Your task to perform on an android device: toggle pop-ups in chrome Image 0: 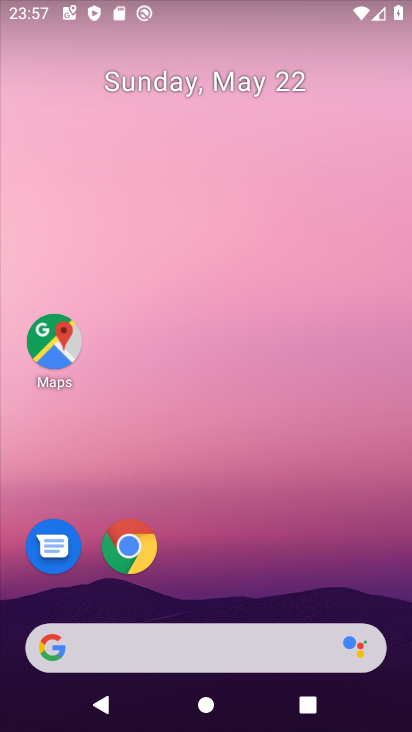
Step 0: drag from (208, 586) to (282, 262)
Your task to perform on an android device: toggle pop-ups in chrome Image 1: 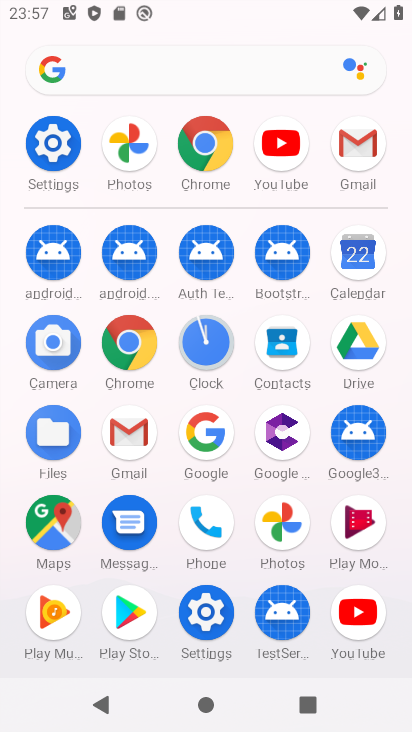
Step 1: click (193, 151)
Your task to perform on an android device: toggle pop-ups in chrome Image 2: 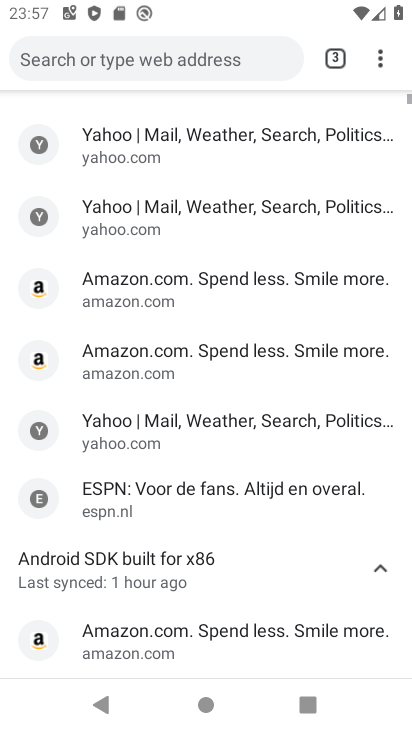
Step 2: drag from (237, 466) to (282, 187)
Your task to perform on an android device: toggle pop-ups in chrome Image 3: 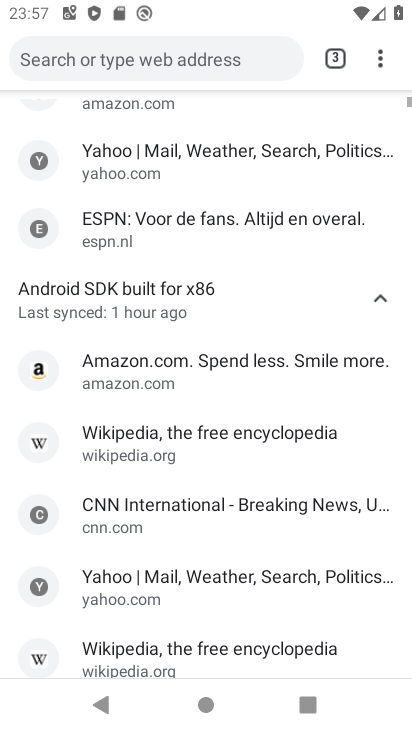
Step 3: drag from (282, 150) to (237, 607)
Your task to perform on an android device: toggle pop-ups in chrome Image 4: 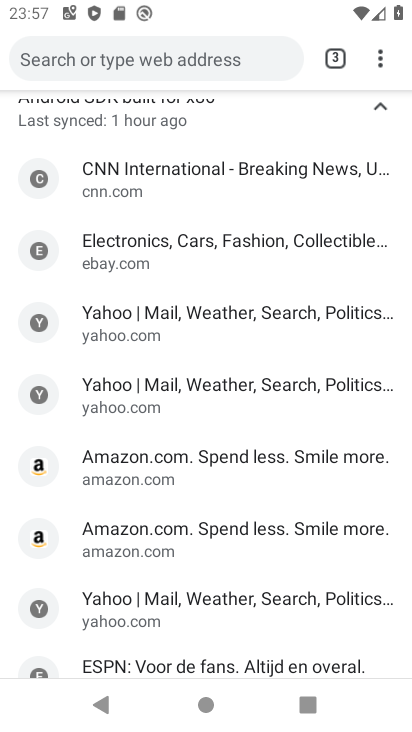
Step 4: click (378, 56)
Your task to perform on an android device: toggle pop-ups in chrome Image 5: 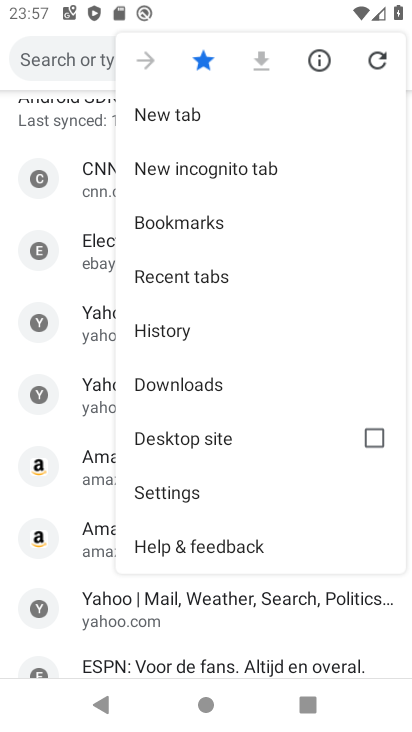
Step 5: click (170, 481)
Your task to perform on an android device: toggle pop-ups in chrome Image 6: 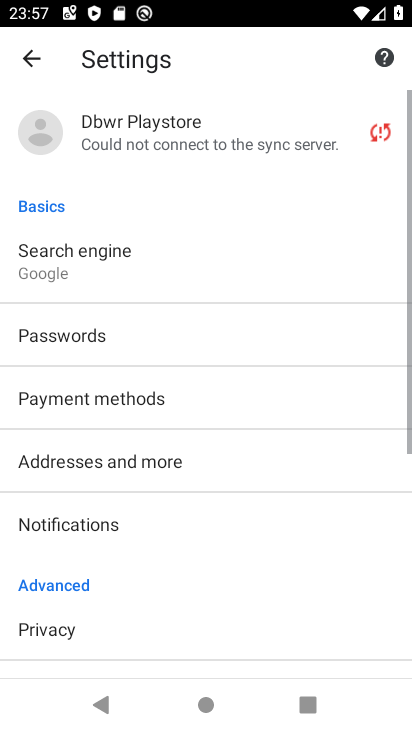
Step 6: drag from (199, 380) to (316, 51)
Your task to perform on an android device: toggle pop-ups in chrome Image 7: 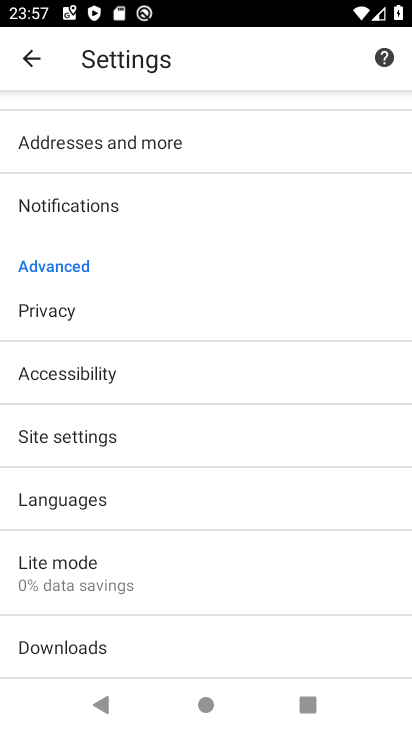
Step 7: click (107, 423)
Your task to perform on an android device: toggle pop-ups in chrome Image 8: 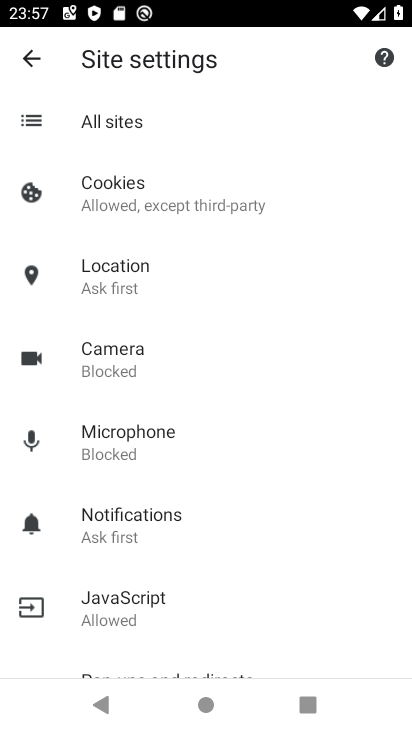
Step 8: drag from (220, 586) to (307, 193)
Your task to perform on an android device: toggle pop-ups in chrome Image 9: 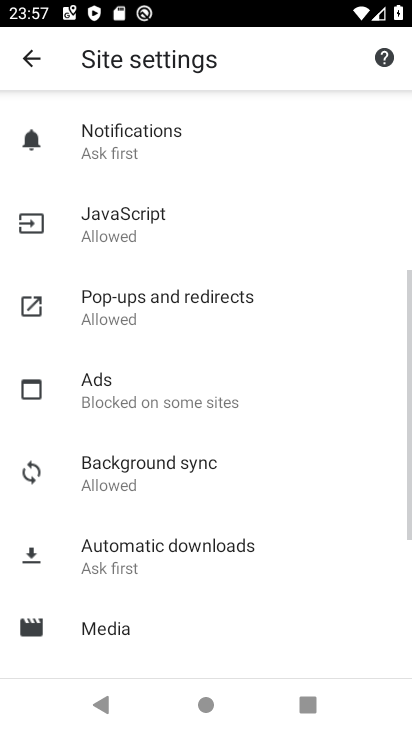
Step 9: drag from (188, 515) to (258, 249)
Your task to perform on an android device: toggle pop-ups in chrome Image 10: 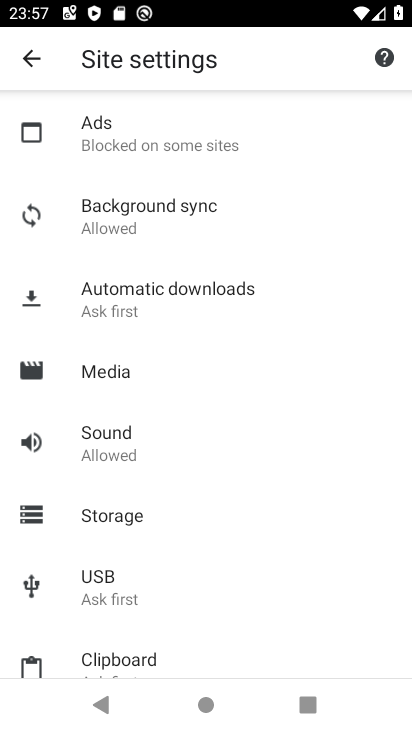
Step 10: drag from (123, 208) to (239, 560)
Your task to perform on an android device: toggle pop-ups in chrome Image 11: 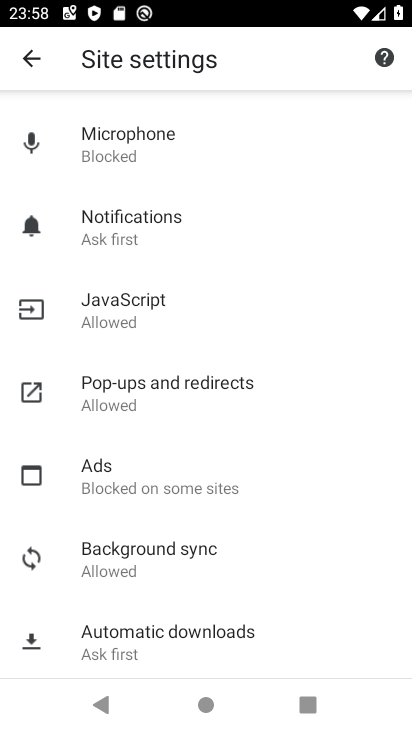
Step 11: click (191, 394)
Your task to perform on an android device: toggle pop-ups in chrome Image 12: 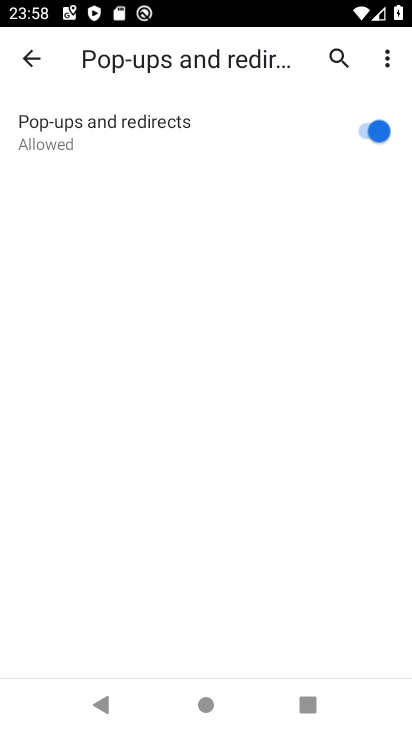
Step 12: drag from (211, 463) to (244, 209)
Your task to perform on an android device: toggle pop-ups in chrome Image 13: 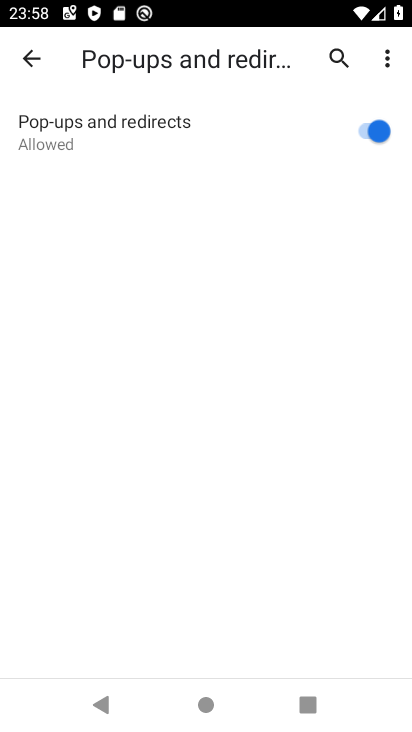
Step 13: drag from (245, 186) to (176, 610)
Your task to perform on an android device: toggle pop-ups in chrome Image 14: 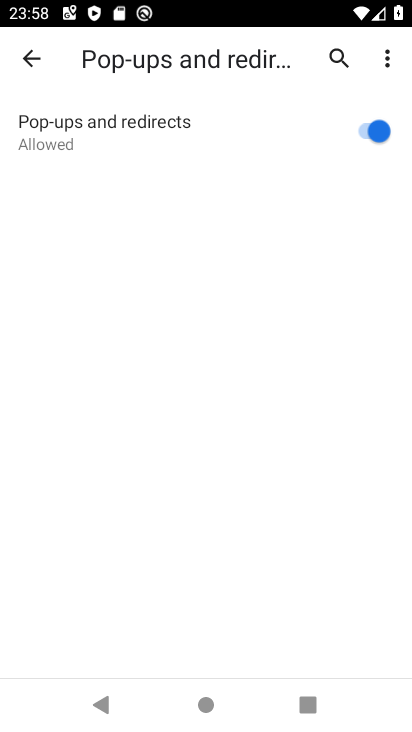
Step 14: drag from (241, 202) to (222, 545)
Your task to perform on an android device: toggle pop-ups in chrome Image 15: 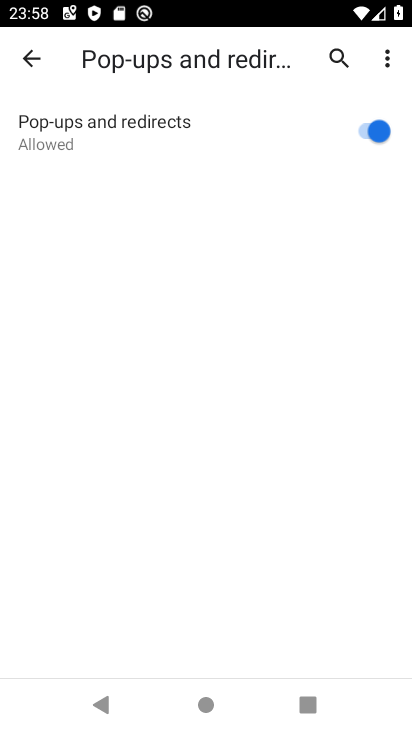
Step 15: click (384, 140)
Your task to perform on an android device: toggle pop-ups in chrome Image 16: 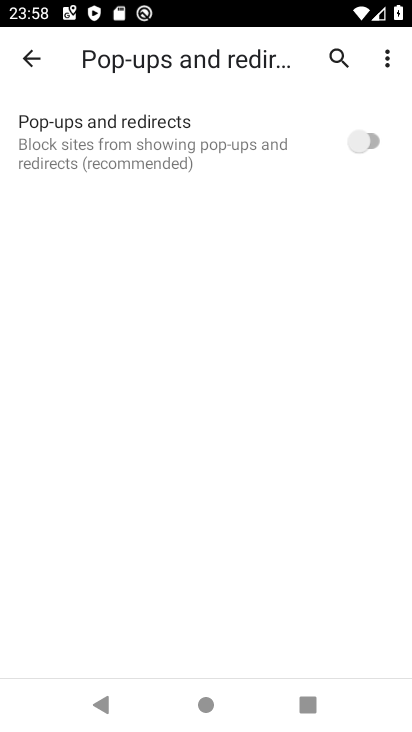
Step 16: task complete